Your task to perform on an android device: Open battery settings Image 0: 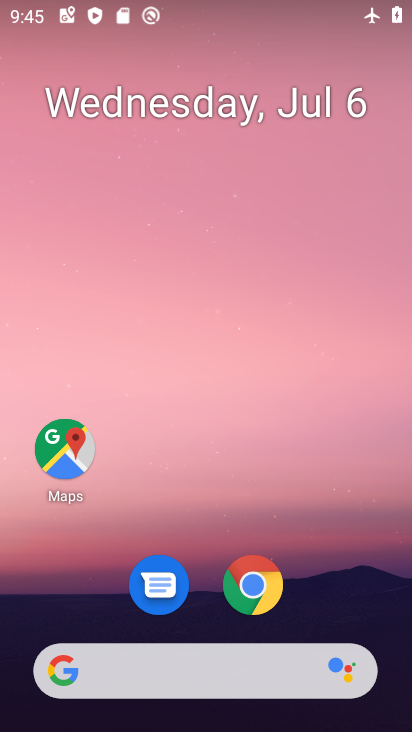
Step 0: drag from (237, 474) to (269, 4)
Your task to perform on an android device: Open battery settings Image 1: 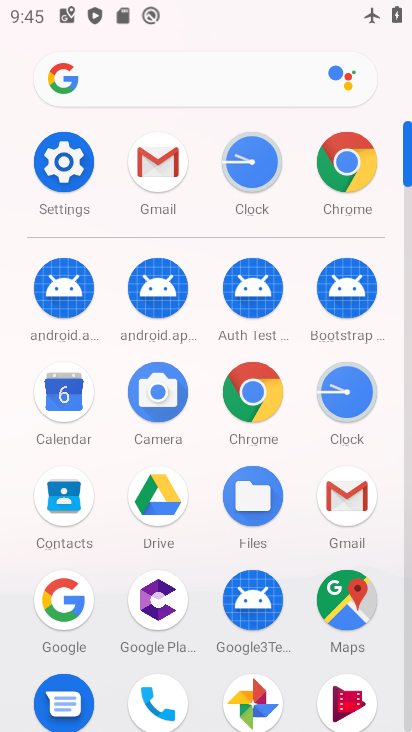
Step 1: click (61, 161)
Your task to perform on an android device: Open battery settings Image 2: 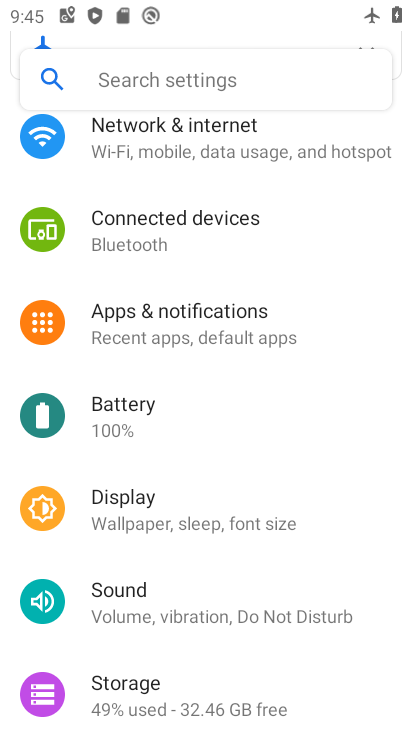
Step 2: click (140, 405)
Your task to perform on an android device: Open battery settings Image 3: 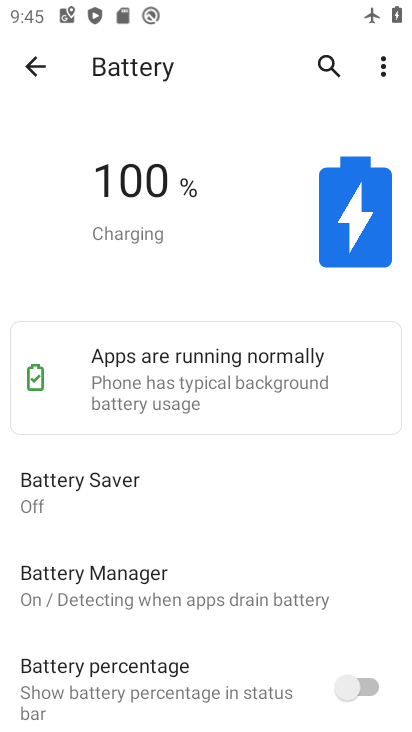
Step 3: task complete